Your task to perform on an android device: What's the weather going to be tomorrow? Image 0: 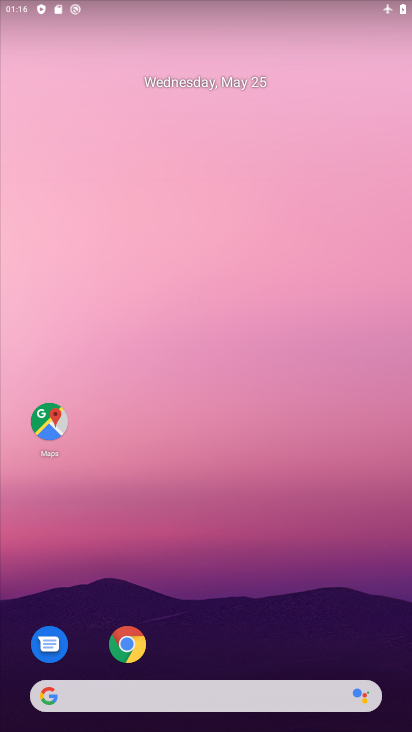
Step 0: click (270, 696)
Your task to perform on an android device: What's the weather going to be tomorrow? Image 1: 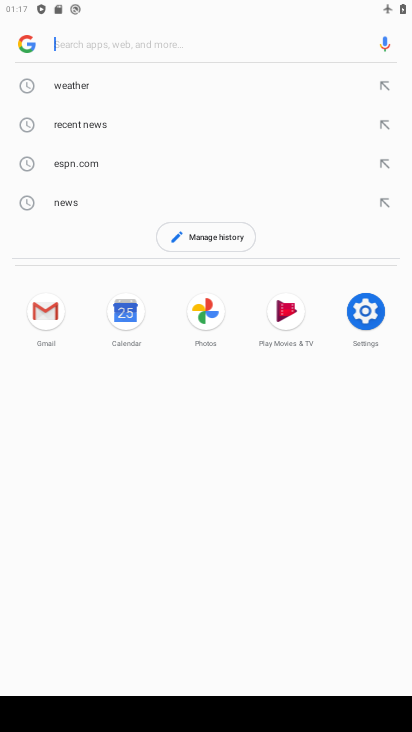
Step 1: click (69, 85)
Your task to perform on an android device: What's the weather going to be tomorrow? Image 2: 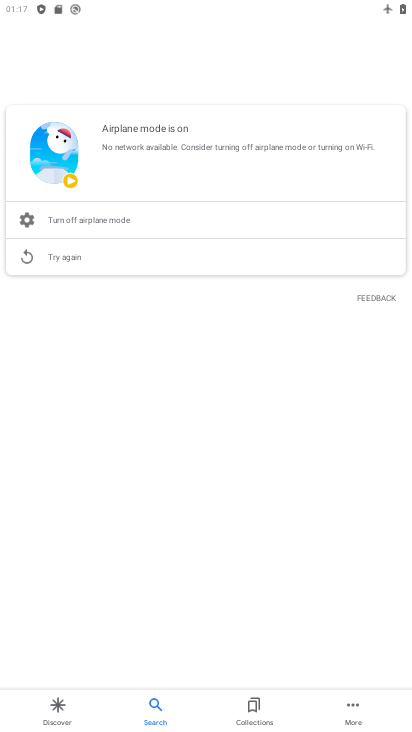
Step 2: task complete